Your task to perform on an android device: change the clock display to digital Image 0: 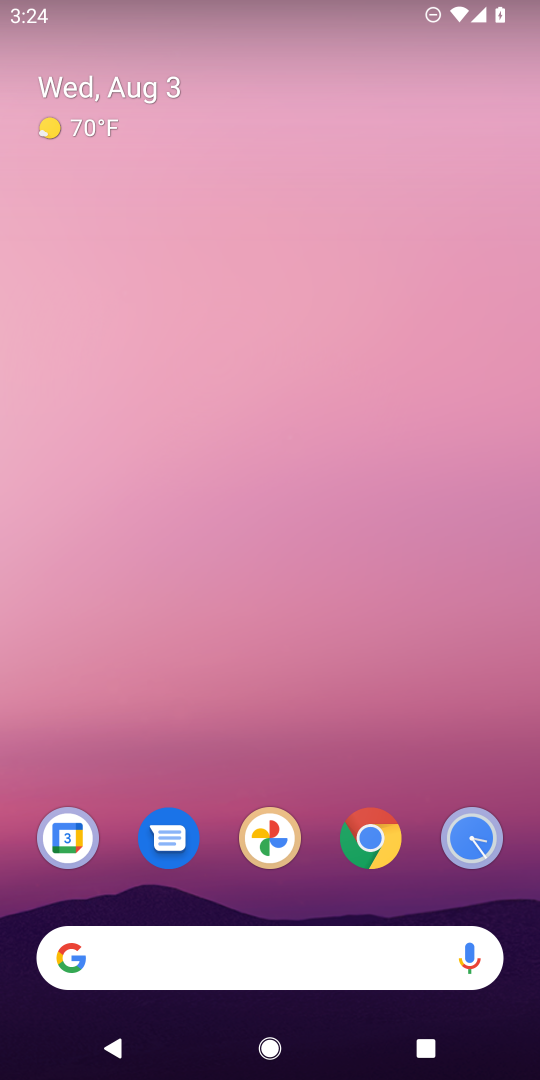
Step 0: drag from (224, 896) to (174, 266)
Your task to perform on an android device: change the clock display to digital Image 1: 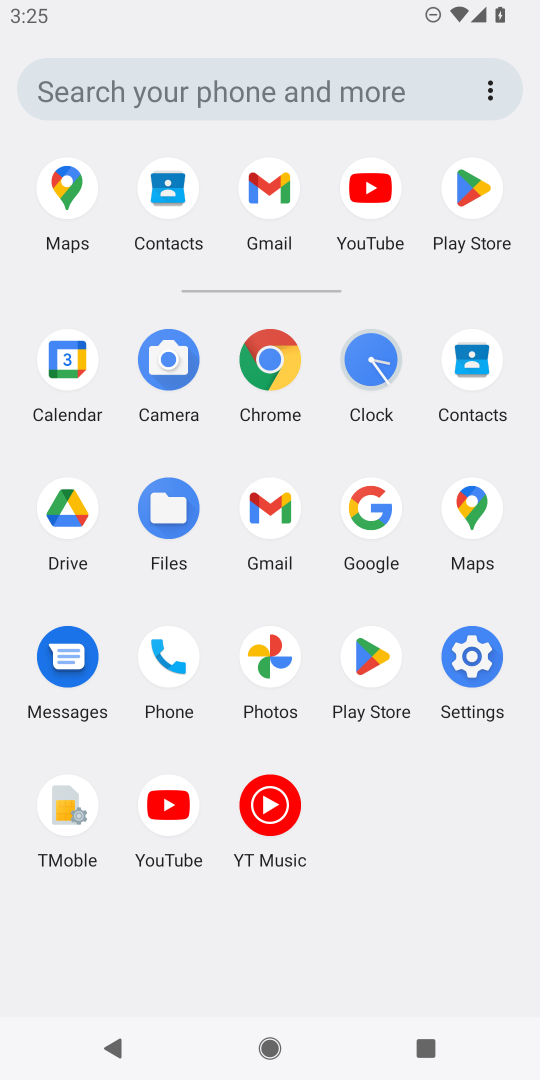
Step 1: click (373, 346)
Your task to perform on an android device: change the clock display to digital Image 2: 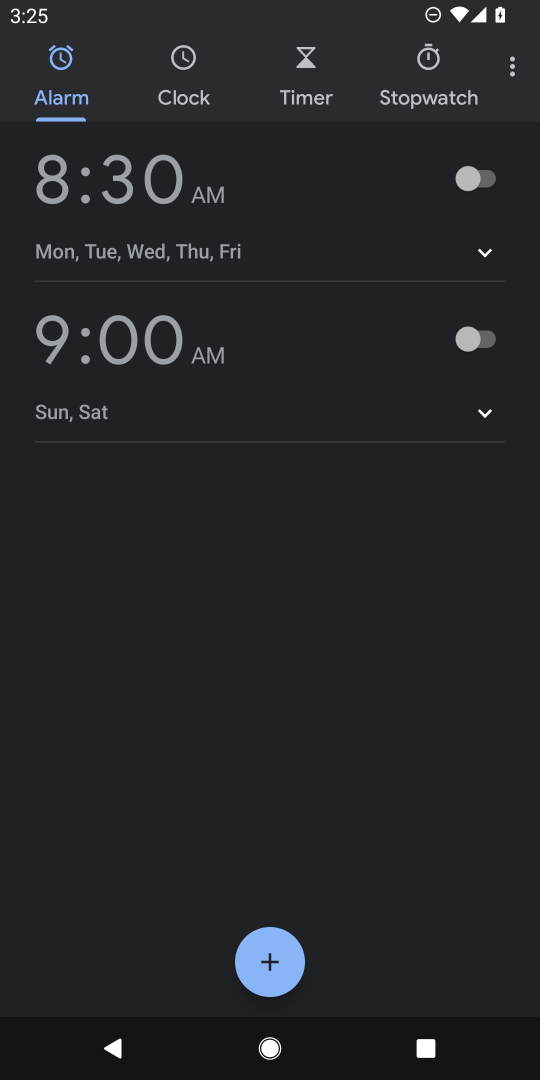
Step 2: click (505, 72)
Your task to perform on an android device: change the clock display to digital Image 3: 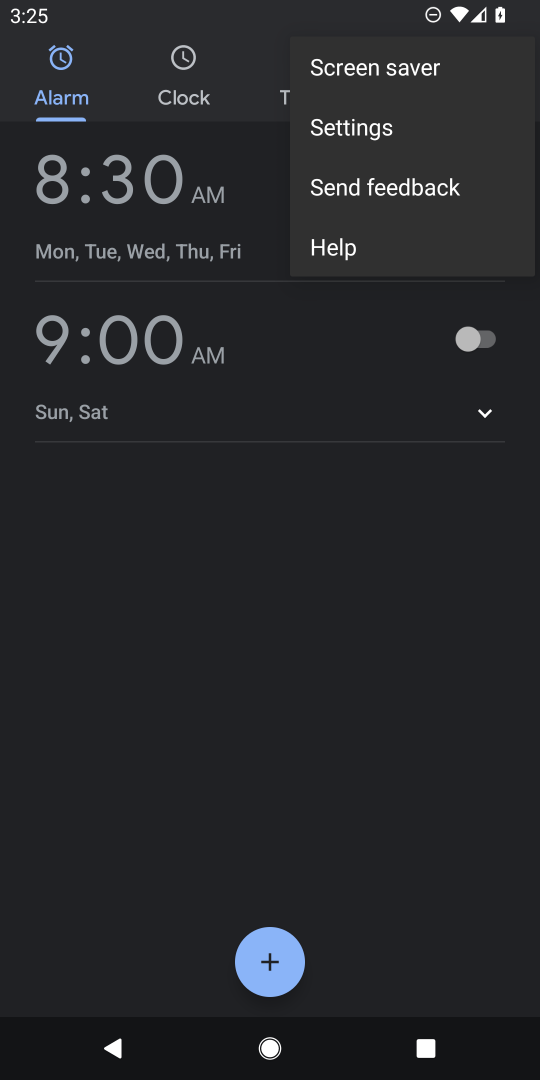
Step 3: click (349, 148)
Your task to perform on an android device: change the clock display to digital Image 4: 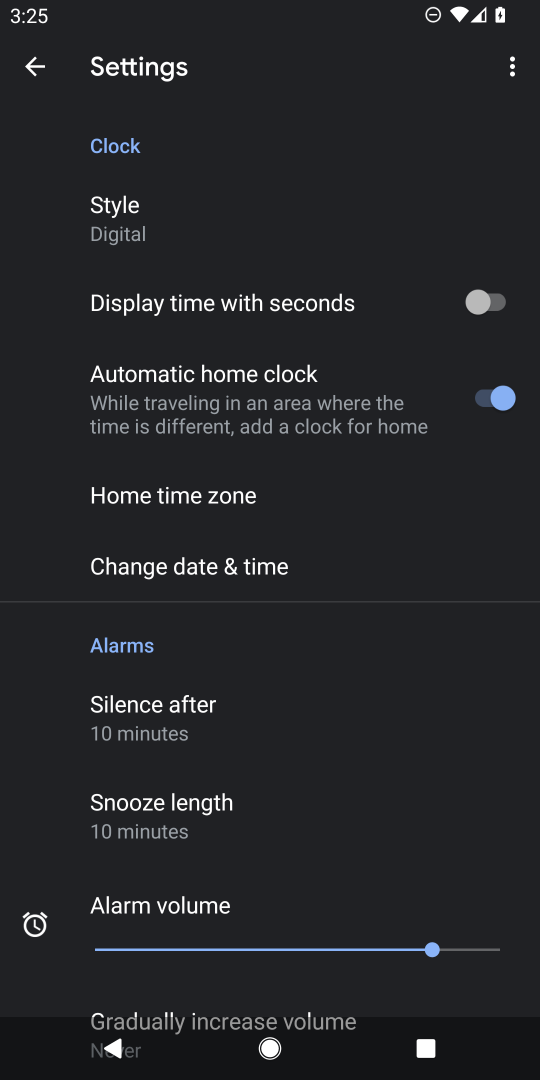
Step 4: click (109, 215)
Your task to perform on an android device: change the clock display to digital Image 5: 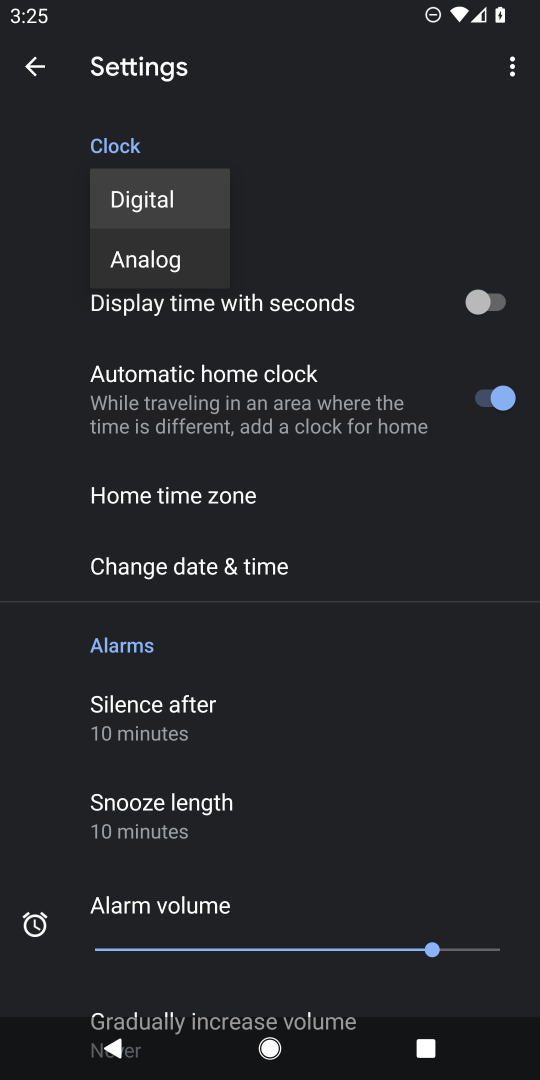
Step 5: click (175, 204)
Your task to perform on an android device: change the clock display to digital Image 6: 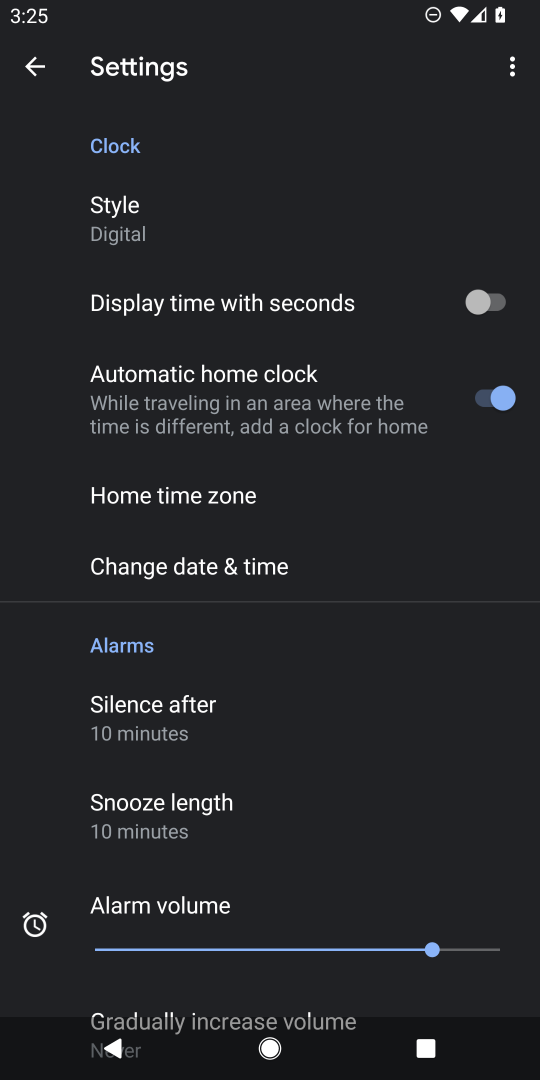
Step 6: task complete